Your task to perform on an android device: When is my next meeting? Image 0: 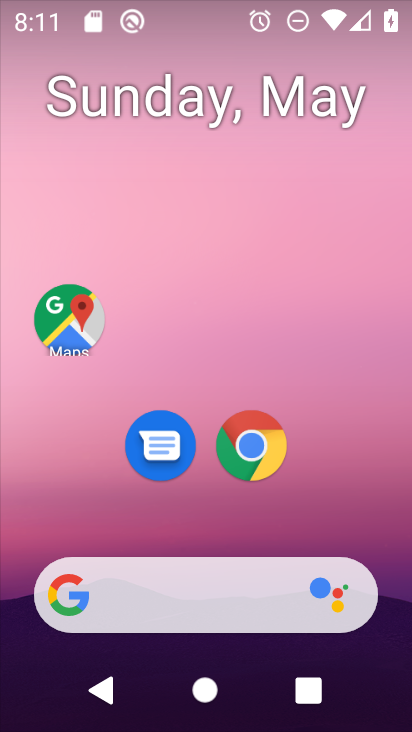
Step 0: drag from (232, 558) to (261, 150)
Your task to perform on an android device: When is my next meeting? Image 1: 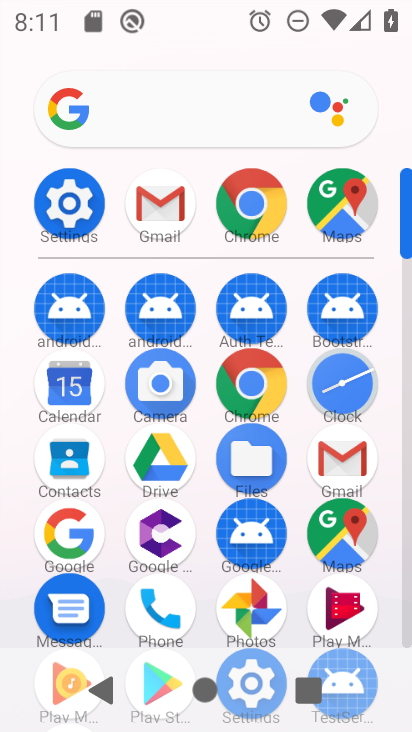
Step 1: drag from (267, 495) to (113, 433)
Your task to perform on an android device: When is my next meeting? Image 2: 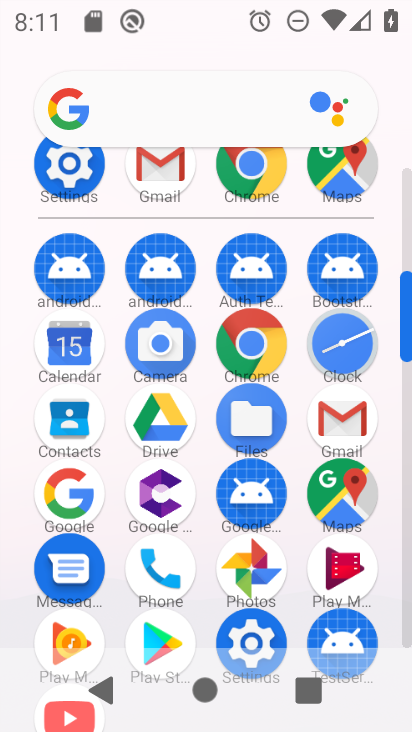
Step 2: click (78, 348)
Your task to perform on an android device: When is my next meeting? Image 3: 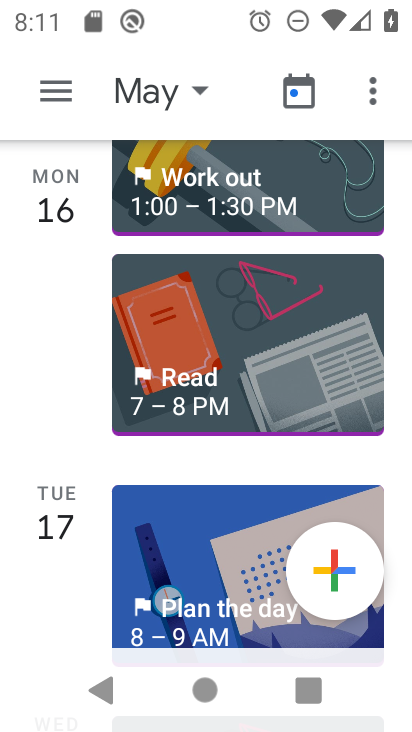
Step 3: task complete